Your task to perform on an android device: move an email to a new category in the gmail app Image 0: 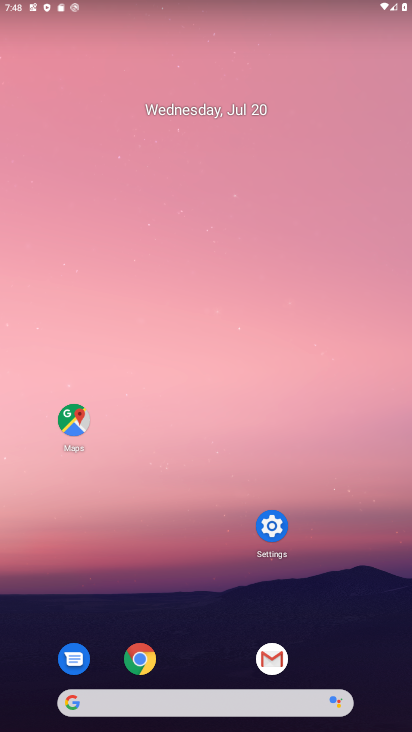
Step 0: click (276, 668)
Your task to perform on an android device: move an email to a new category in the gmail app Image 1: 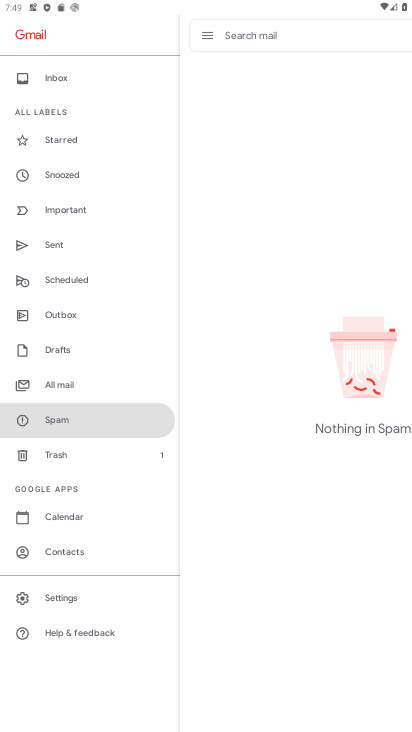
Step 1: click (83, 593)
Your task to perform on an android device: move an email to a new category in the gmail app Image 2: 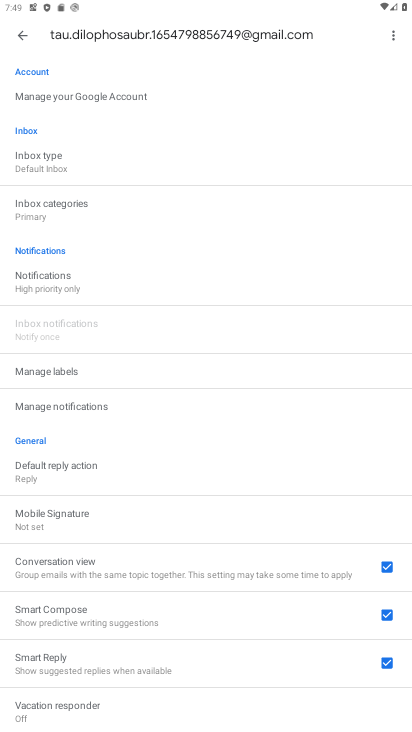
Step 2: click (101, 223)
Your task to perform on an android device: move an email to a new category in the gmail app Image 3: 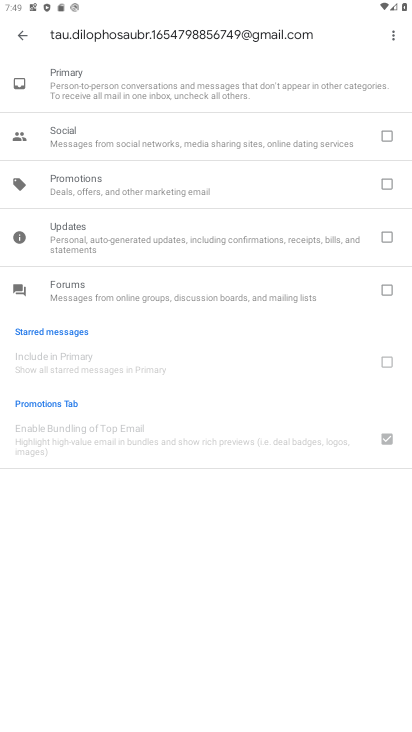
Step 3: click (18, 35)
Your task to perform on an android device: move an email to a new category in the gmail app Image 4: 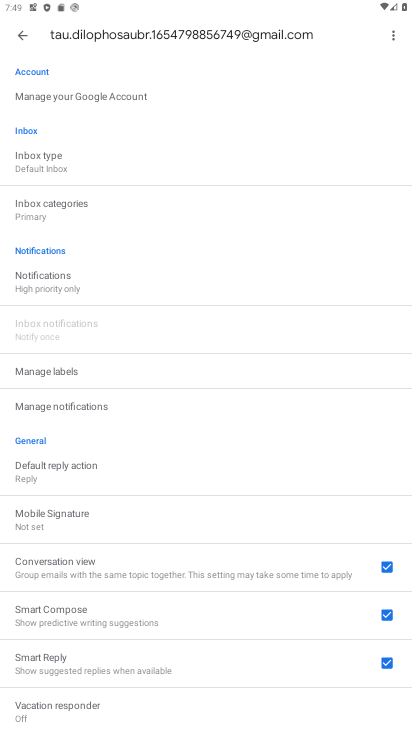
Step 4: click (82, 224)
Your task to perform on an android device: move an email to a new category in the gmail app Image 5: 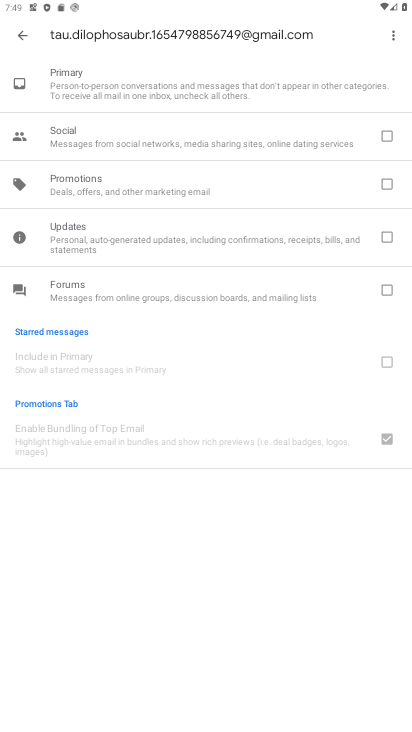
Step 5: click (376, 184)
Your task to perform on an android device: move an email to a new category in the gmail app Image 6: 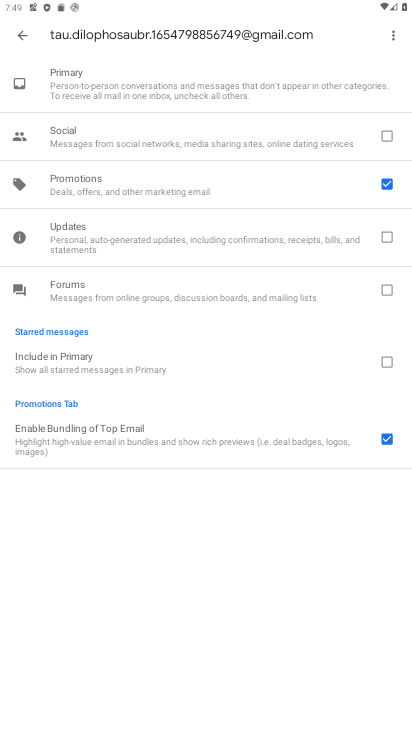
Step 6: task complete